Your task to perform on an android device: Open CNN.com Image 0: 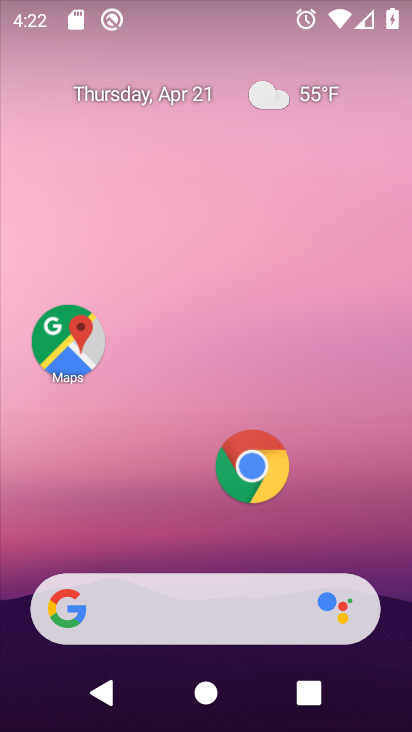
Step 0: drag from (306, 524) to (313, 0)
Your task to perform on an android device: Open CNN.com Image 1: 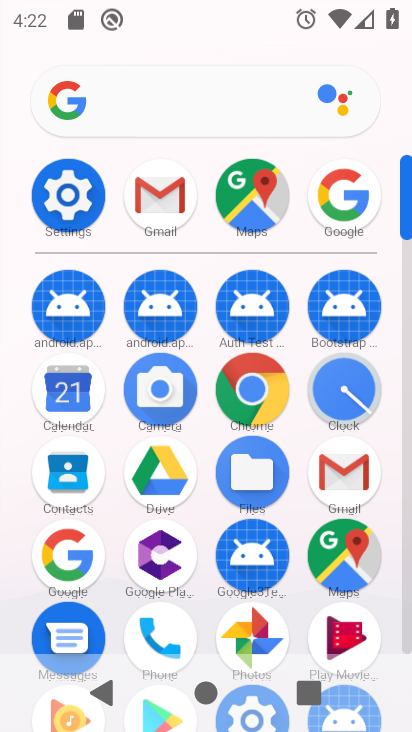
Step 1: click (244, 379)
Your task to perform on an android device: Open CNN.com Image 2: 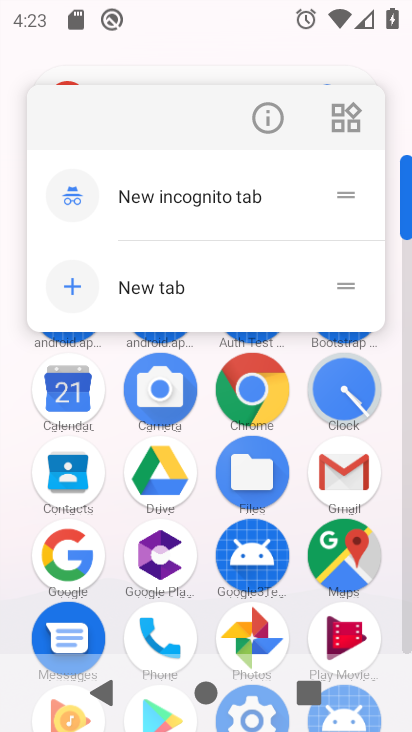
Step 2: click (244, 379)
Your task to perform on an android device: Open CNN.com Image 3: 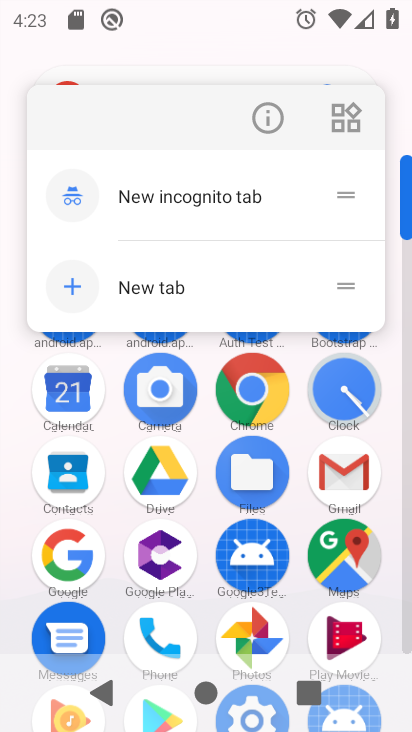
Step 3: click (251, 397)
Your task to perform on an android device: Open CNN.com Image 4: 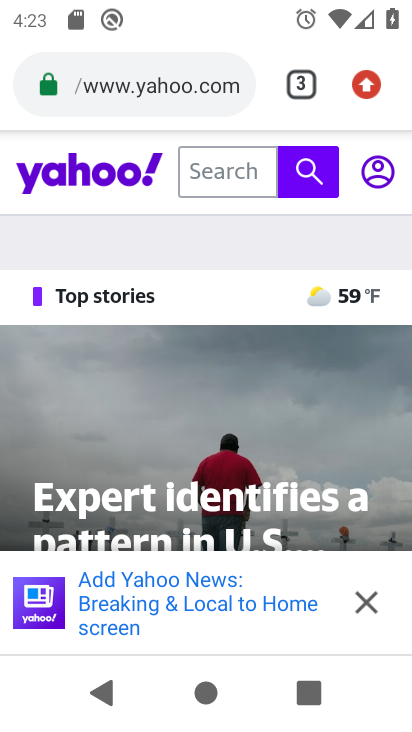
Step 4: click (304, 86)
Your task to perform on an android device: Open CNN.com Image 5: 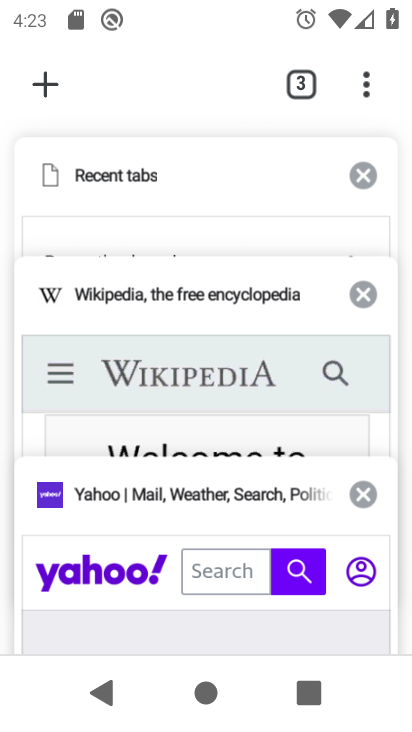
Step 5: click (55, 72)
Your task to perform on an android device: Open CNN.com Image 6: 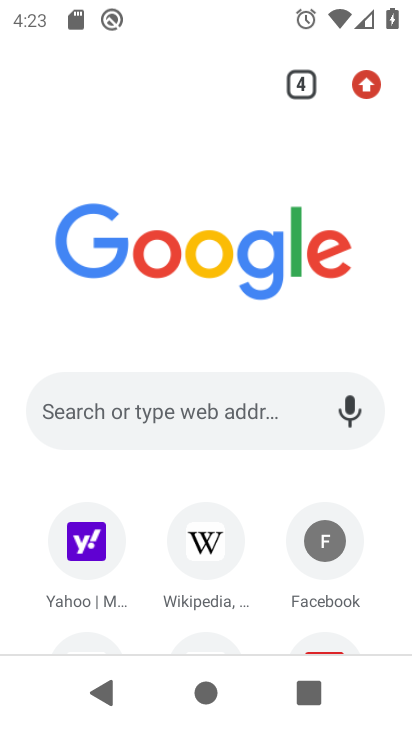
Step 6: click (159, 399)
Your task to perform on an android device: Open CNN.com Image 7: 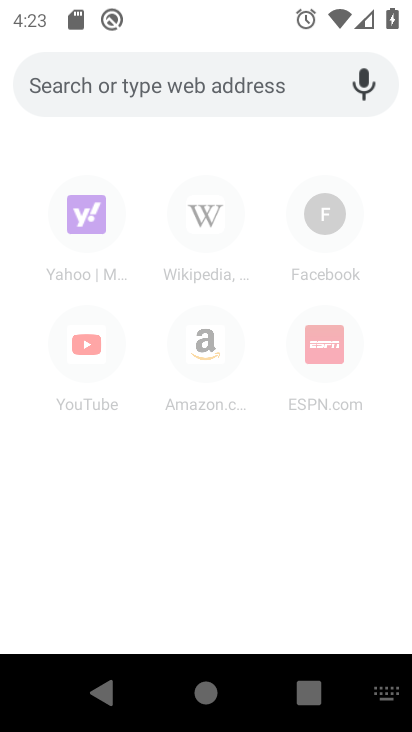
Step 7: type "cnn"
Your task to perform on an android device: Open CNN.com Image 8: 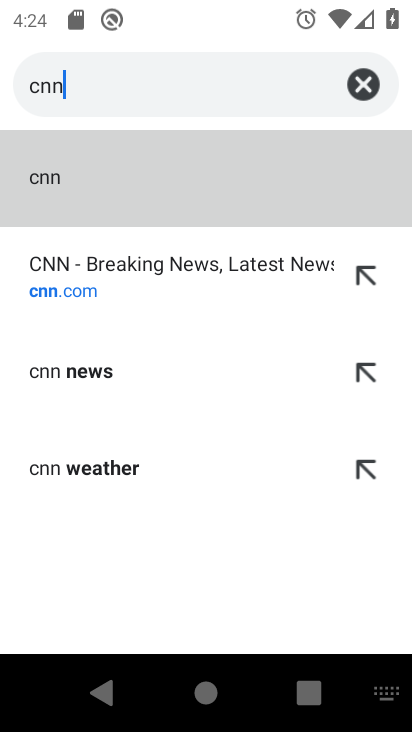
Step 8: click (208, 272)
Your task to perform on an android device: Open CNN.com Image 9: 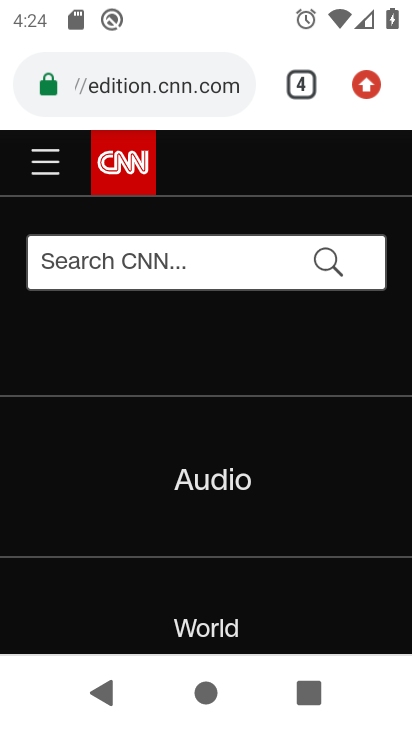
Step 9: click (89, 287)
Your task to perform on an android device: Open CNN.com Image 10: 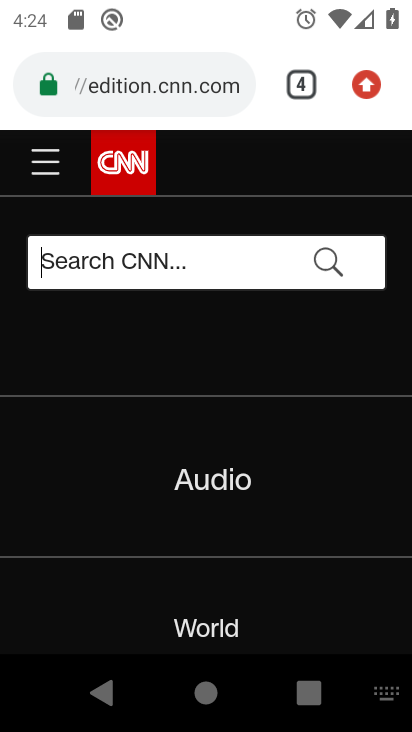
Step 10: task complete